Your task to perform on an android device: Check the news Image 0: 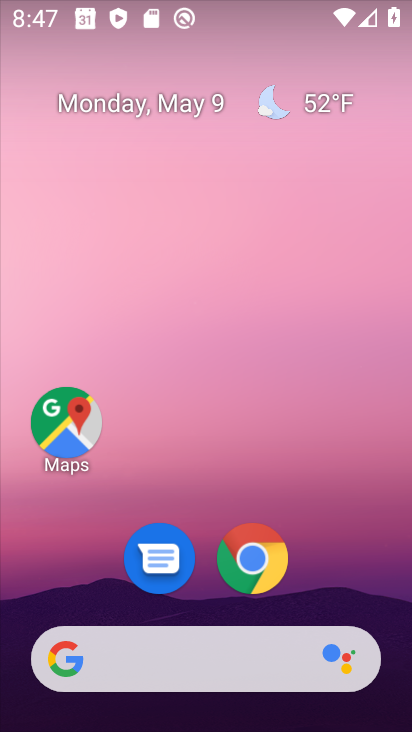
Step 0: click (161, 669)
Your task to perform on an android device: Check the news Image 1: 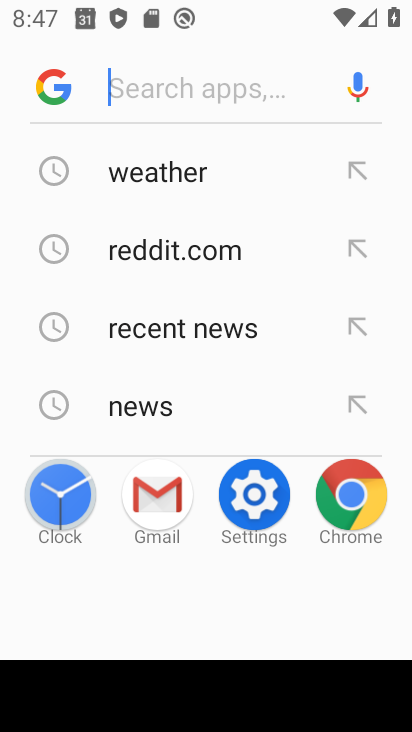
Step 1: click (151, 405)
Your task to perform on an android device: Check the news Image 2: 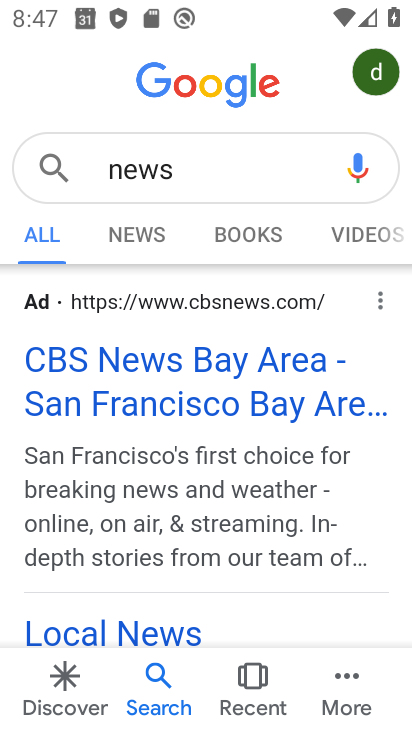
Step 2: task complete